Your task to perform on an android device: Add "macbook pro 15 inch" to the cart on costco.com, then select checkout. Image 0: 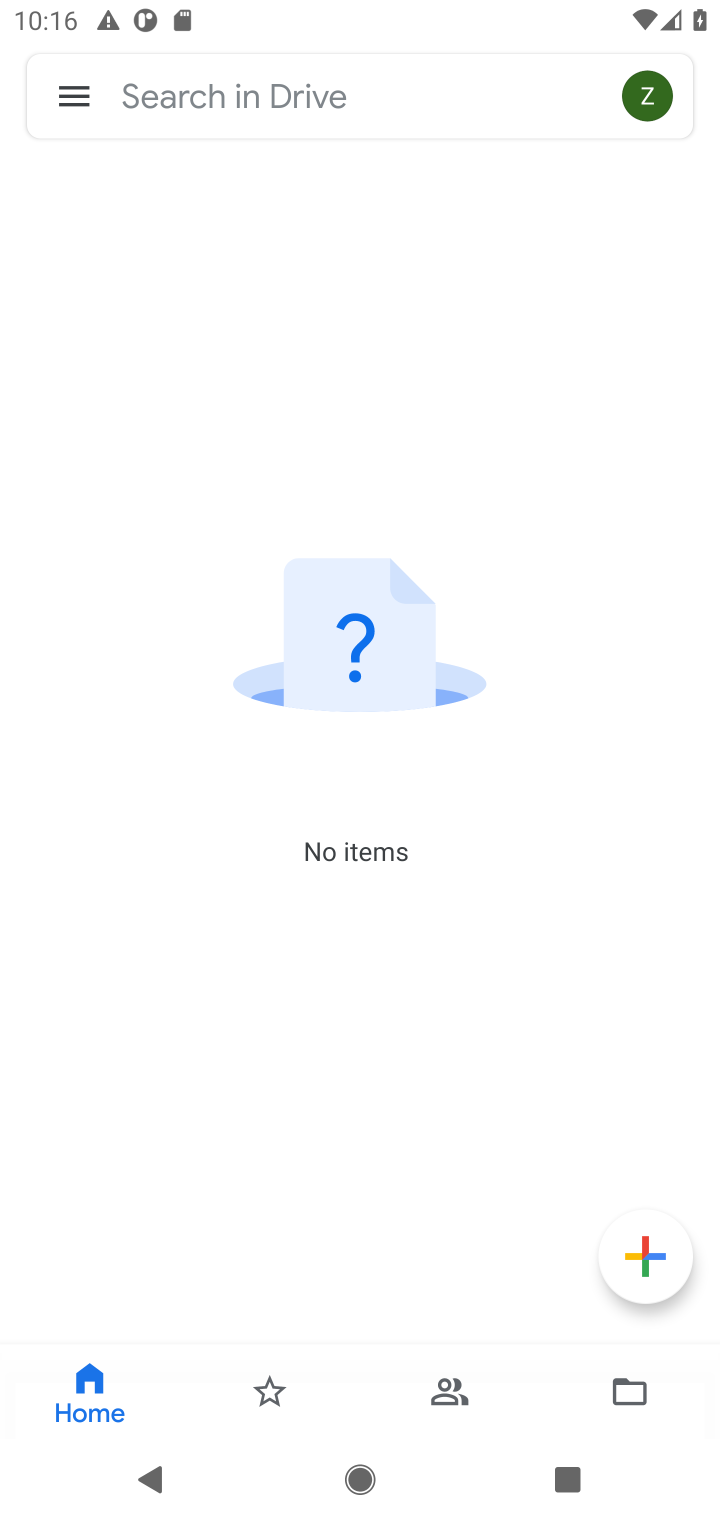
Step 0: press home button
Your task to perform on an android device: Add "macbook pro 15 inch" to the cart on costco.com, then select checkout. Image 1: 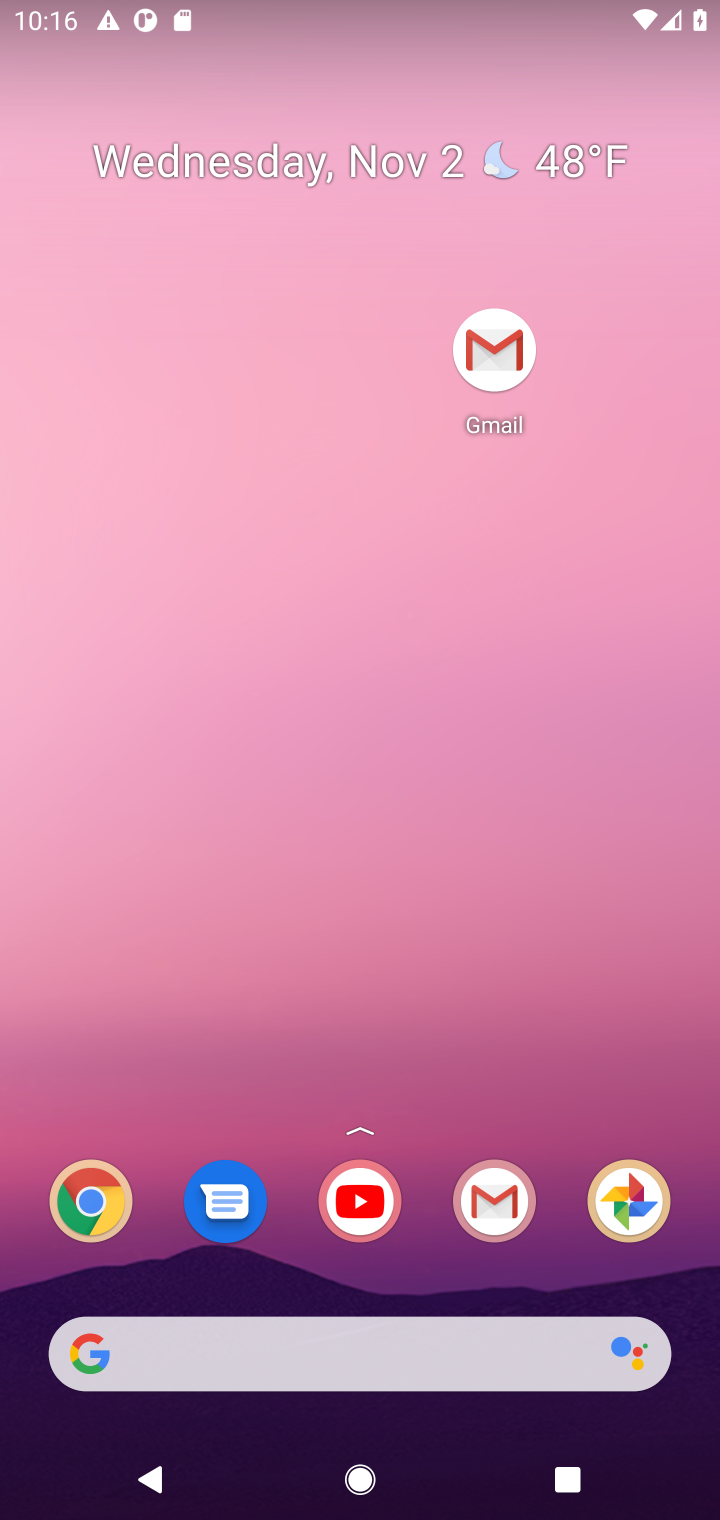
Step 1: drag from (427, 1117) to (340, 165)
Your task to perform on an android device: Add "macbook pro 15 inch" to the cart on costco.com, then select checkout. Image 2: 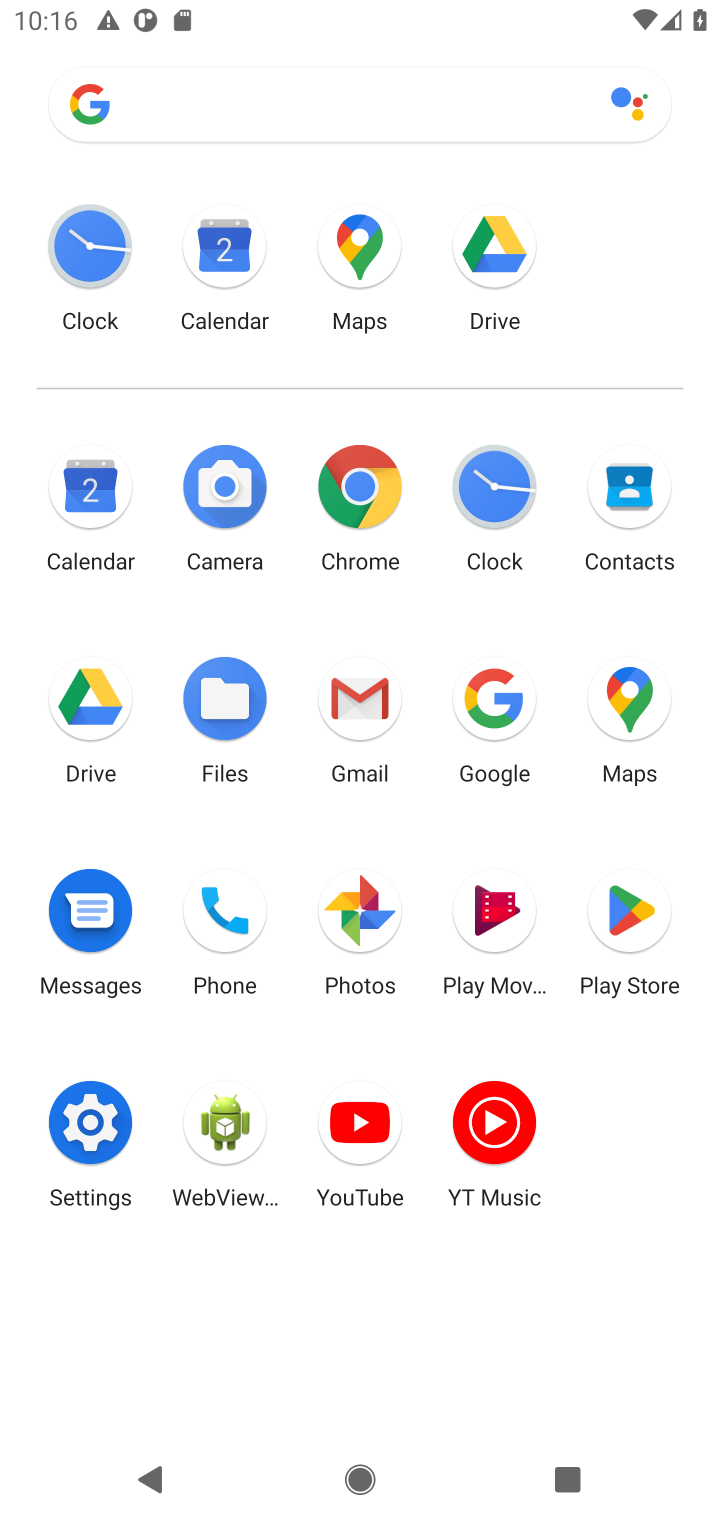
Step 2: click (358, 479)
Your task to perform on an android device: Add "macbook pro 15 inch" to the cart on costco.com, then select checkout. Image 3: 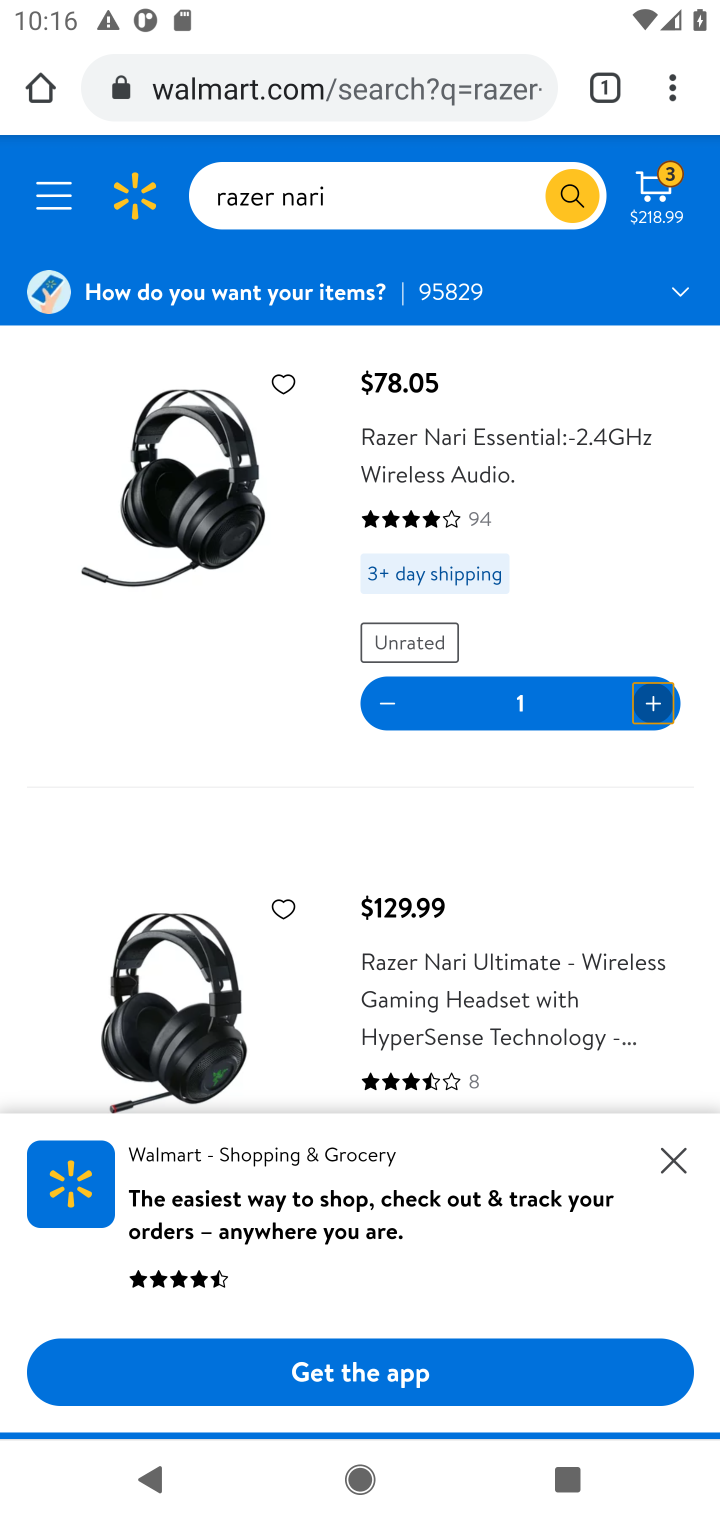
Step 3: click (353, 76)
Your task to perform on an android device: Add "macbook pro 15 inch" to the cart on costco.com, then select checkout. Image 4: 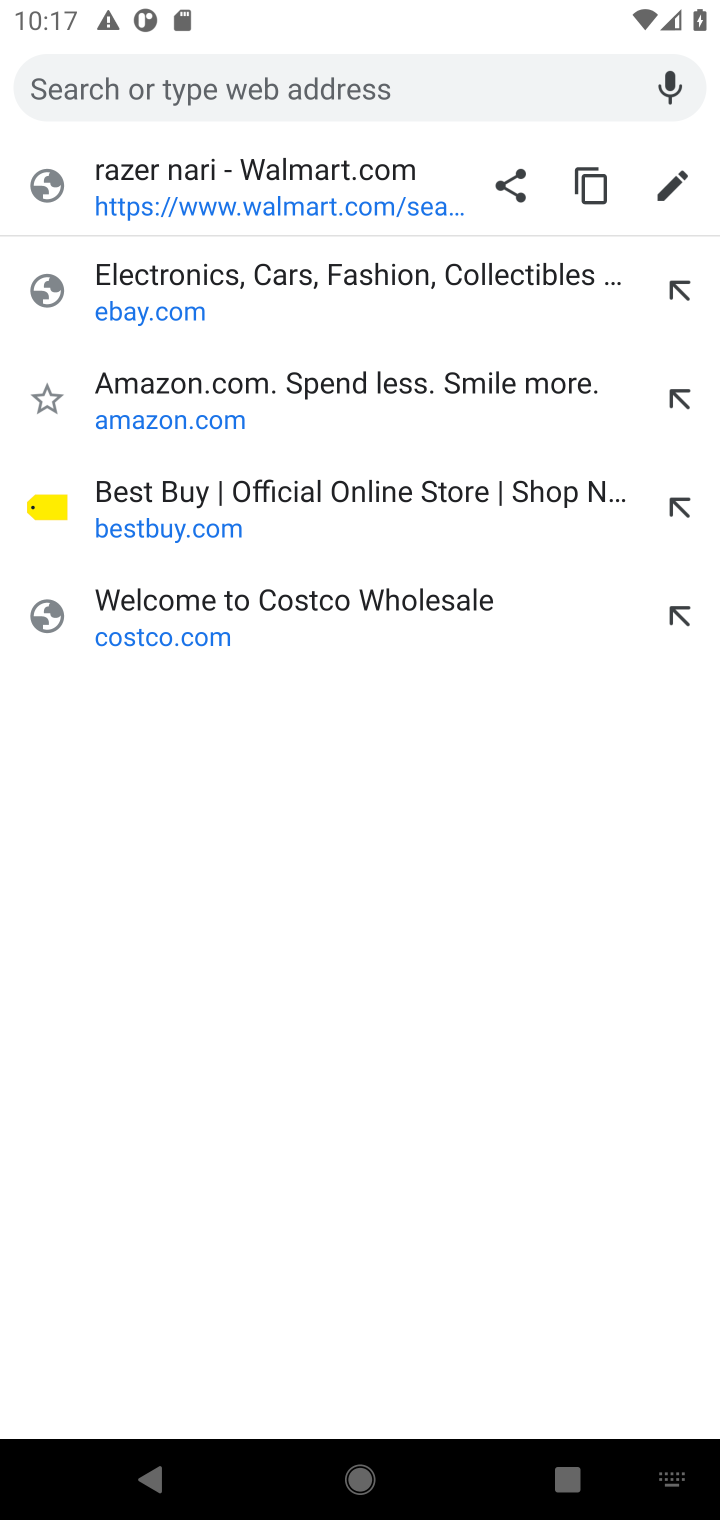
Step 4: type "costco.com"
Your task to perform on an android device: Add "macbook pro 15 inch" to the cart on costco.com, then select checkout. Image 5: 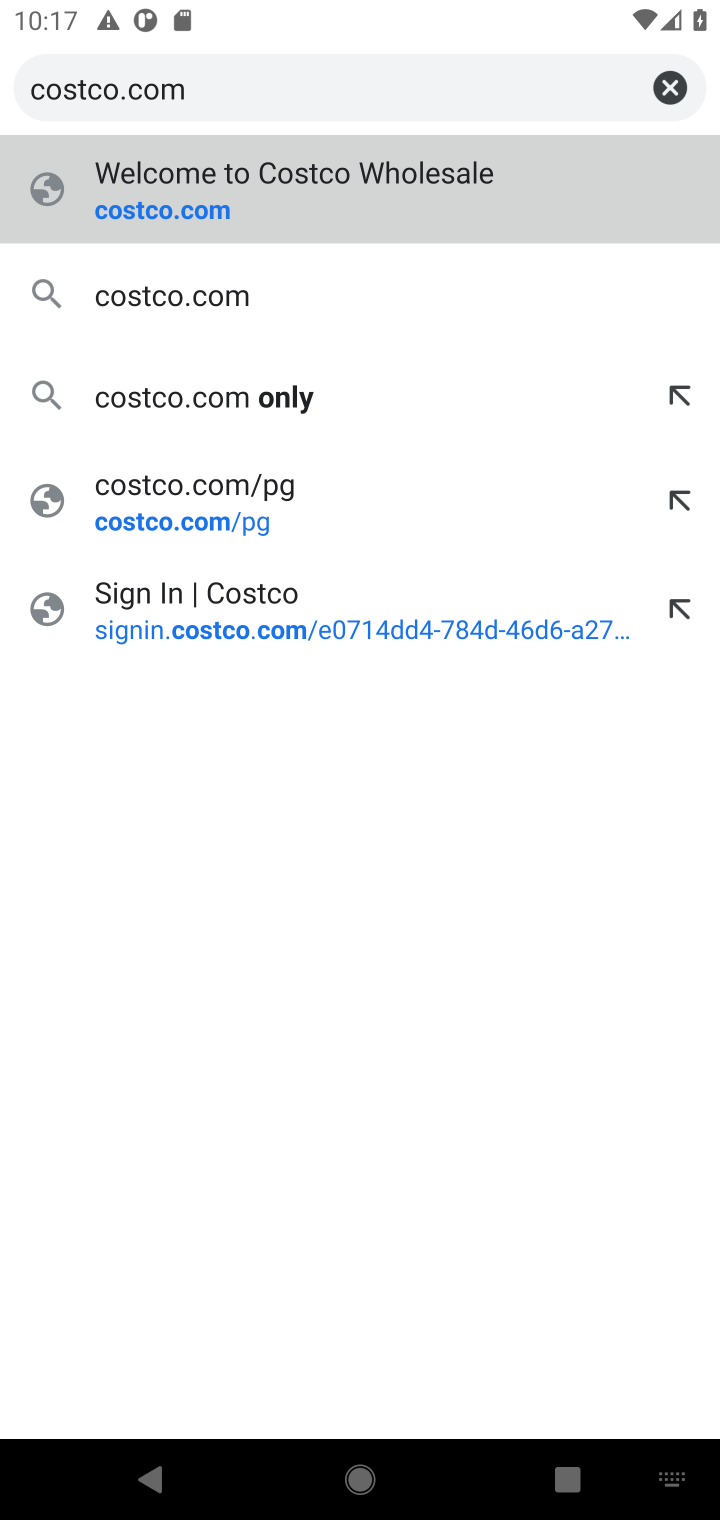
Step 5: press enter
Your task to perform on an android device: Add "macbook pro 15 inch" to the cart on costco.com, then select checkout. Image 6: 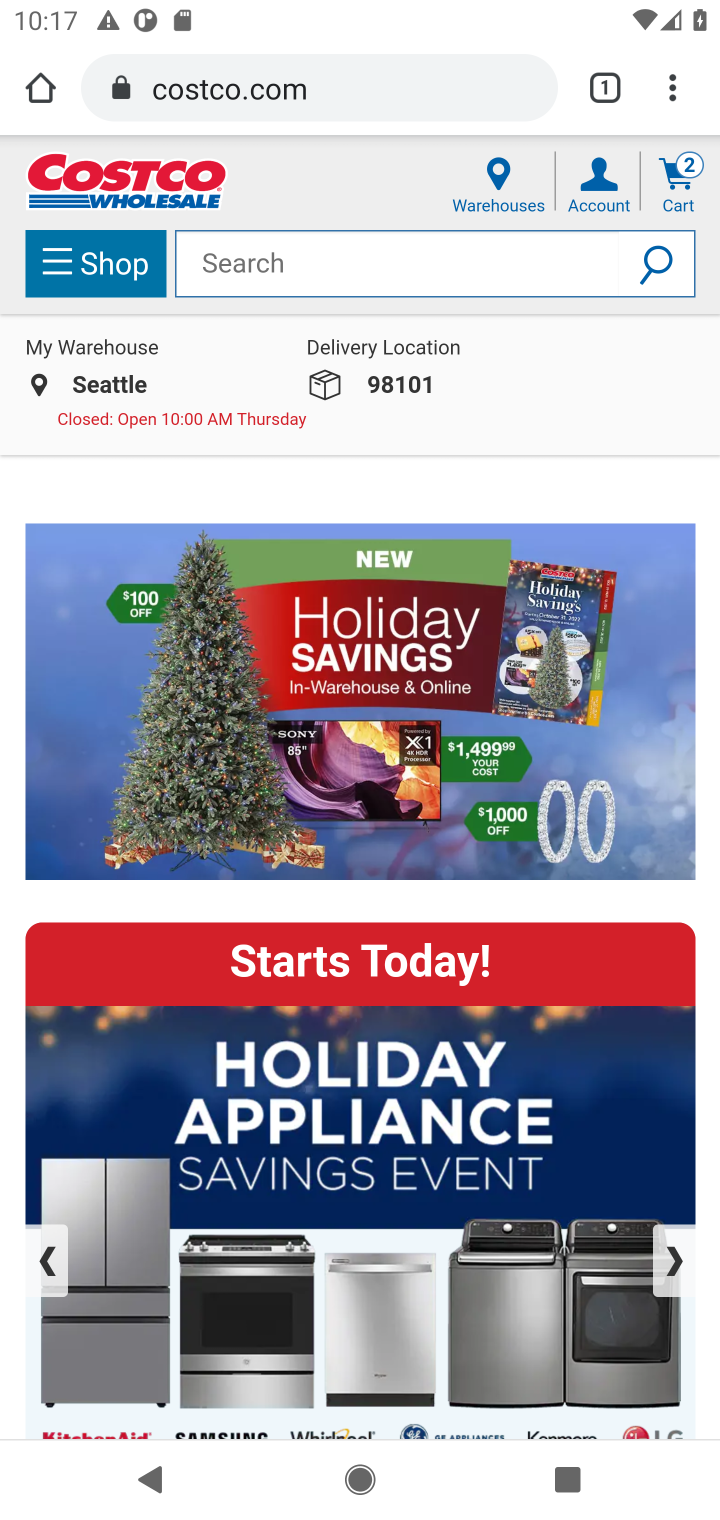
Step 6: click (430, 268)
Your task to perform on an android device: Add "macbook pro 15 inch" to the cart on costco.com, then select checkout. Image 7: 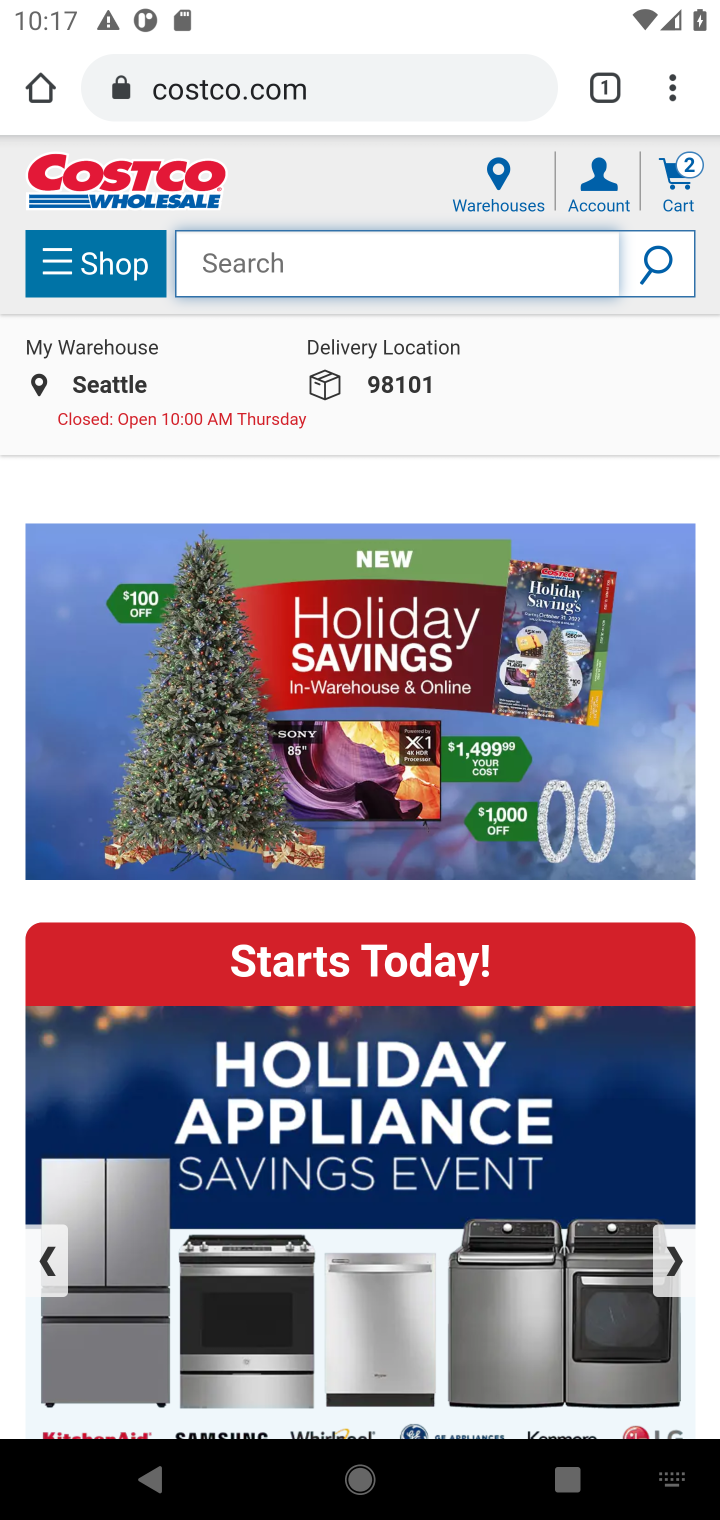
Step 7: type "macbook pro 15 inch"
Your task to perform on an android device: Add "macbook pro 15 inch" to the cart on costco.com, then select checkout. Image 8: 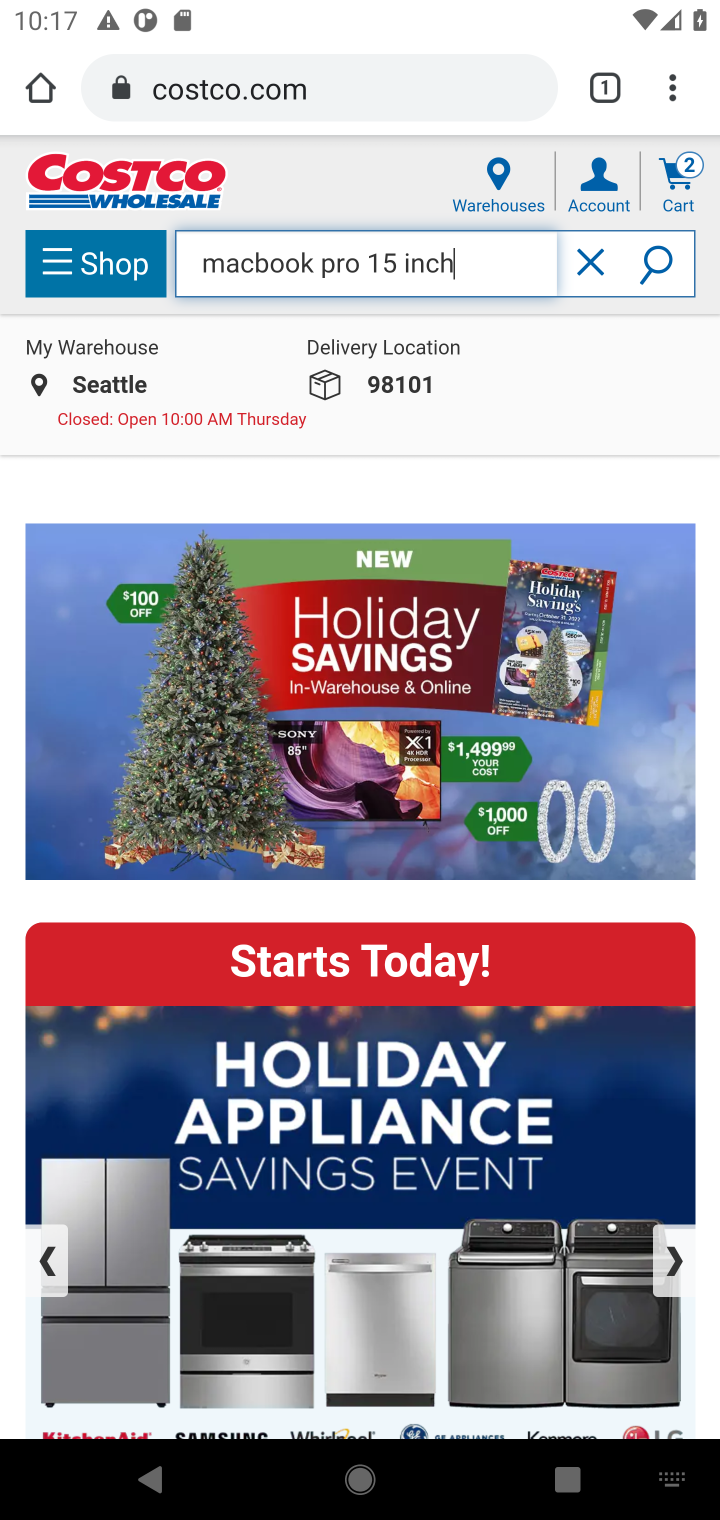
Step 8: press enter
Your task to perform on an android device: Add "macbook pro 15 inch" to the cart on costco.com, then select checkout. Image 9: 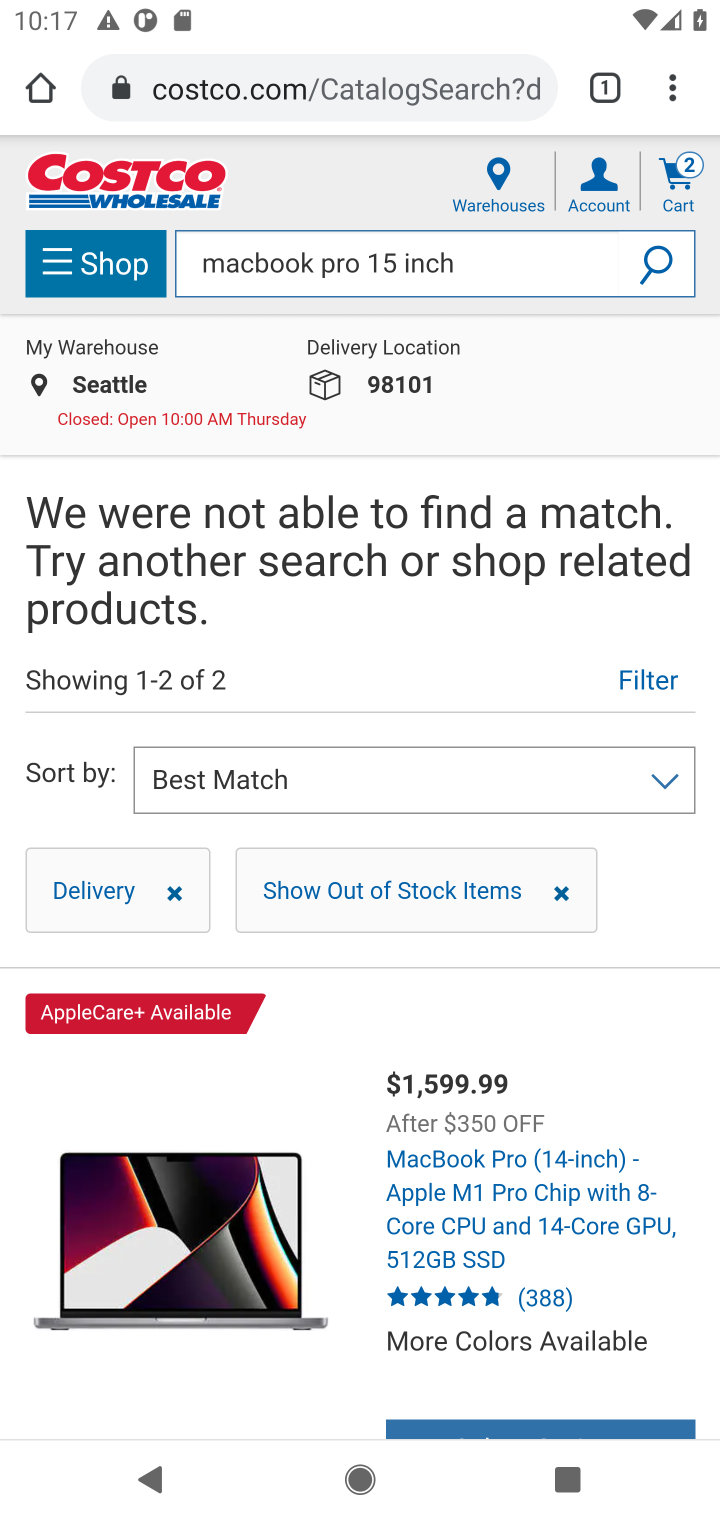
Step 9: task complete